Your task to perform on an android device: What's the weather today? Image 0: 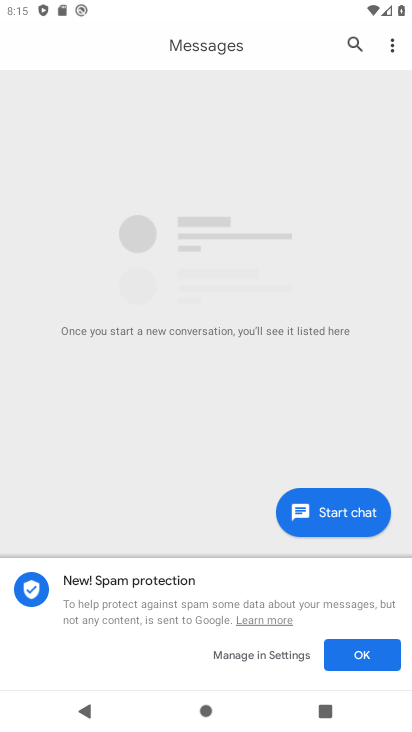
Step 0: press home button
Your task to perform on an android device: What's the weather today? Image 1: 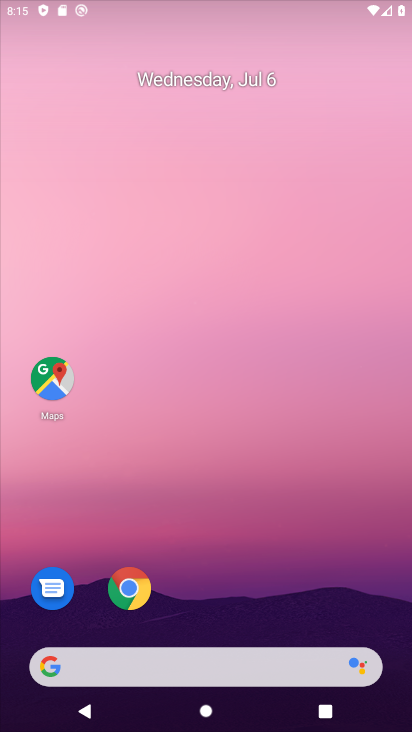
Step 1: drag from (293, 634) to (271, 230)
Your task to perform on an android device: What's the weather today? Image 2: 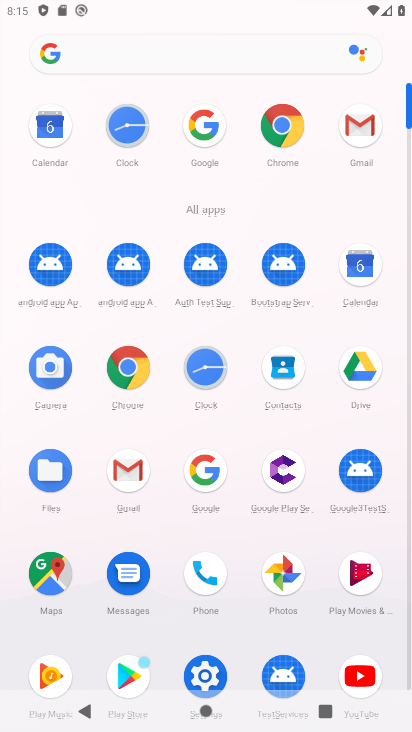
Step 2: click (190, 123)
Your task to perform on an android device: What's the weather today? Image 3: 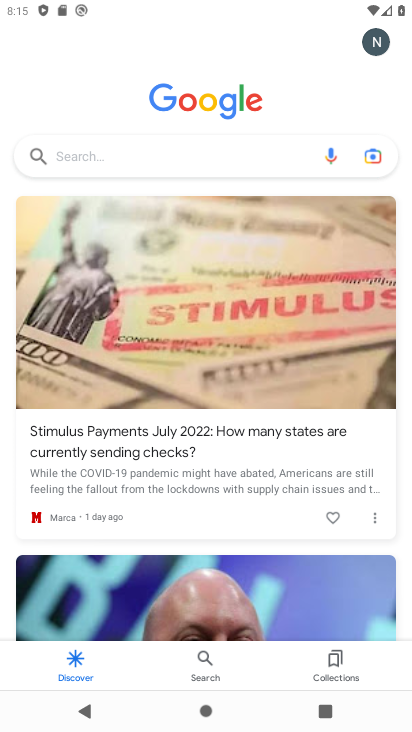
Step 3: press home button
Your task to perform on an android device: What's the weather today? Image 4: 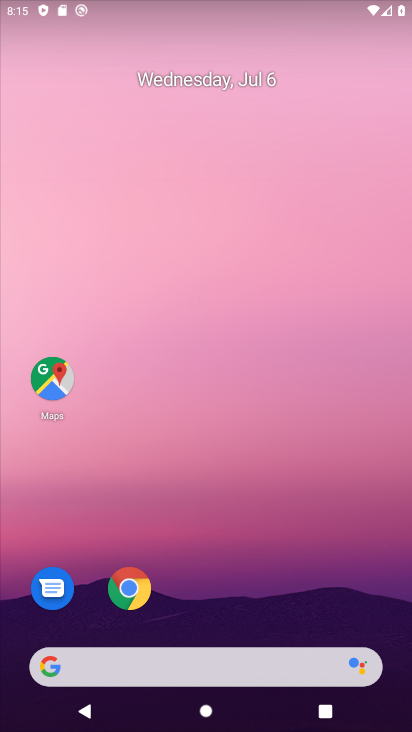
Step 4: drag from (278, 623) to (278, 378)
Your task to perform on an android device: What's the weather today? Image 5: 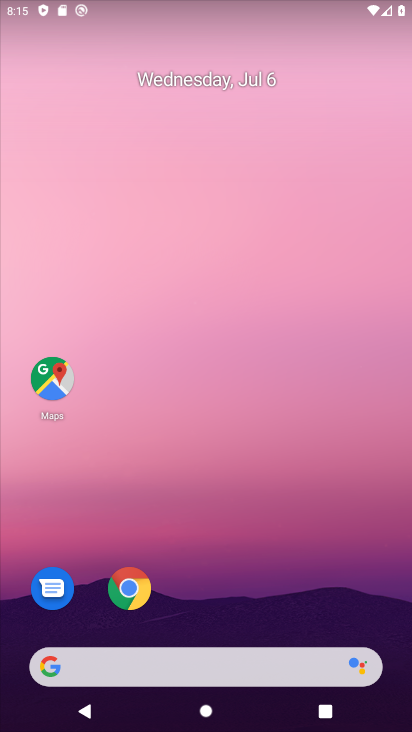
Step 5: drag from (315, 586) to (289, 168)
Your task to perform on an android device: What's the weather today? Image 6: 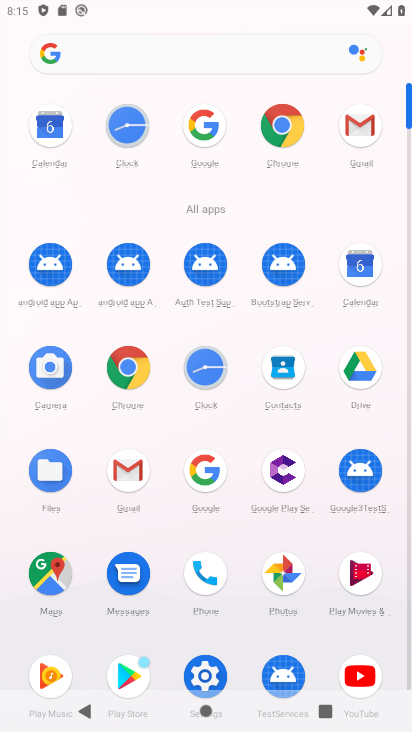
Step 6: click (281, 124)
Your task to perform on an android device: What's the weather today? Image 7: 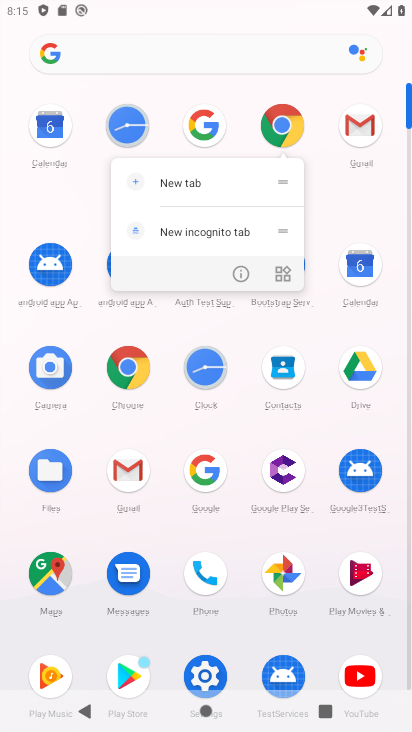
Step 7: click (281, 124)
Your task to perform on an android device: What's the weather today? Image 8: 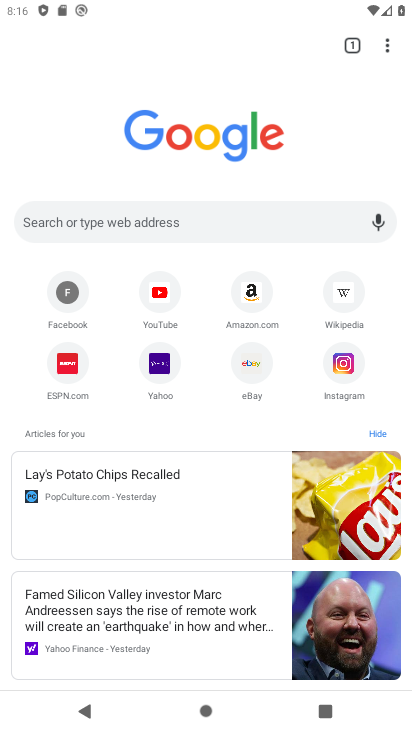
Step 8: click (180, 212)
Your task to perform on an android device: What's the weather today? Image 9: 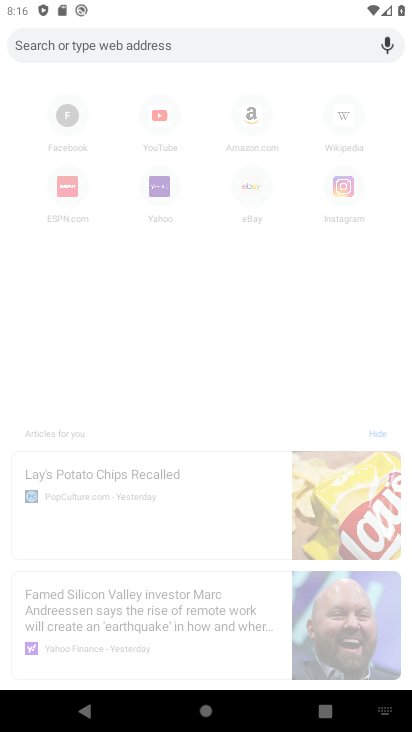
Step 9: type "What's the weather today "
Your task to perform on an android device: What's the weather today? Image 10: 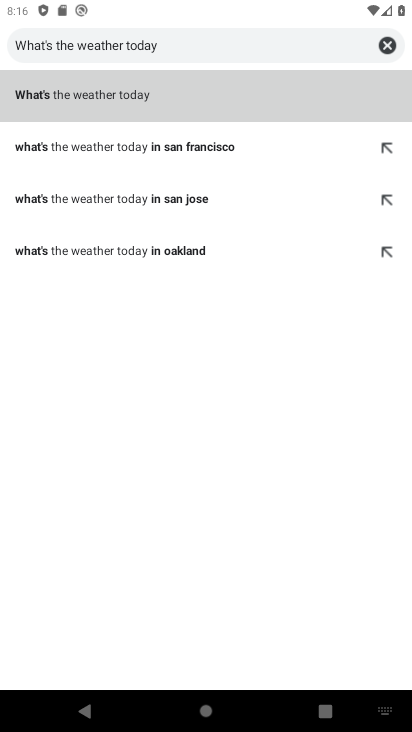
Step 10: click (156, 91)
Your task to perform on an android device: What's the weather today? Image 11: 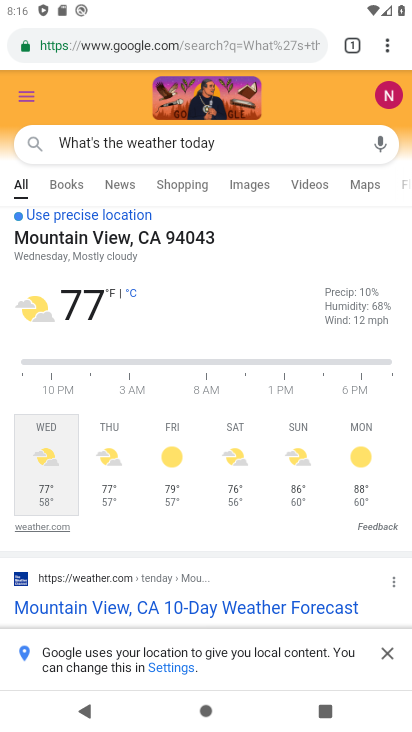
Step 11: task complete